Your task to perform on an android device: open app "Nova Launcher" Image 0: 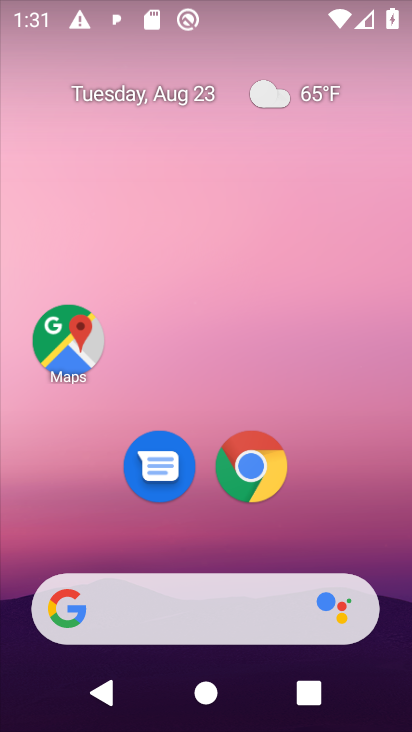
Step 0: drag from (200, 555) to (182, 136)
Your task to perform on an android device: open app "Nova Launcher" Image 1: 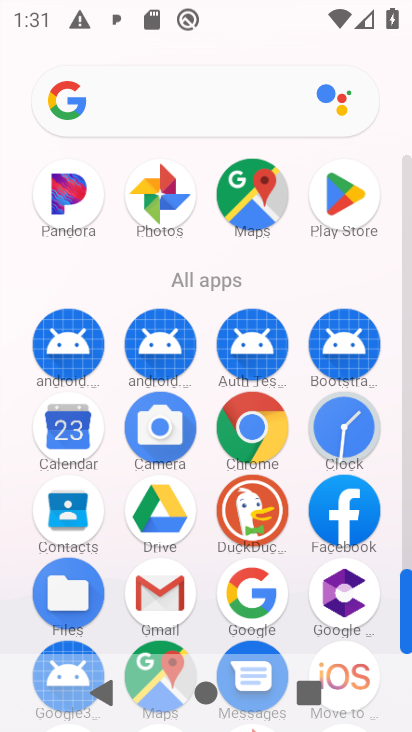
Step 1: click (329, 184)
Your task to perform on an android device: open app "Nova Launcher" Image 2: 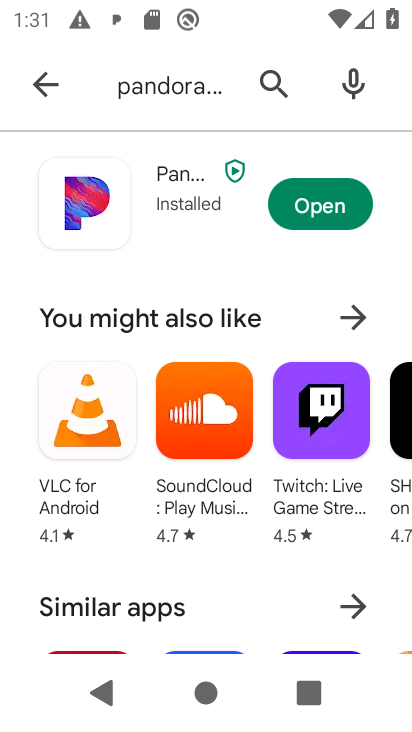
Step 2: click (23, 79)
Your task to perform on an android device: open app "Nova Launcher" Image 3: 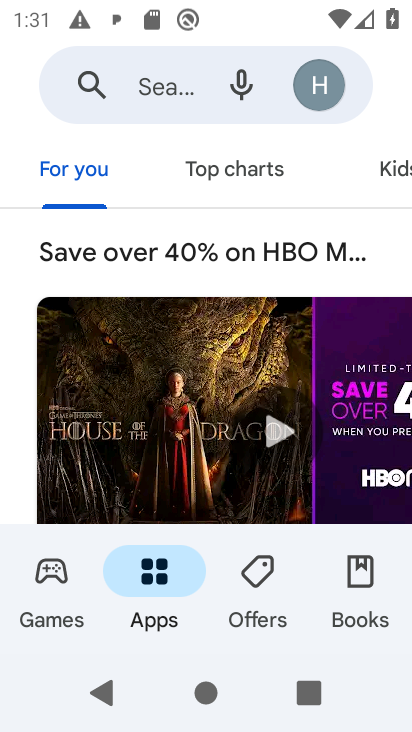
Step 3: click (123, 84)
Your task to perform on an android device: open app "Nova Launcher" Image 4: 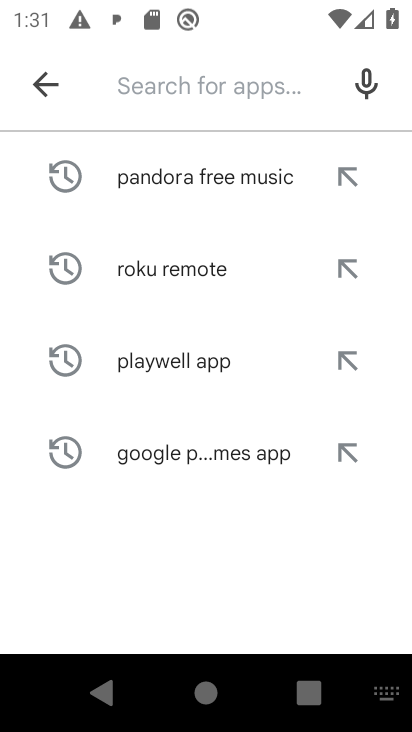
Step 4: type "Nova Launcher "
Your task to perform on an android device: open app "Nova Launcher" Image 5: 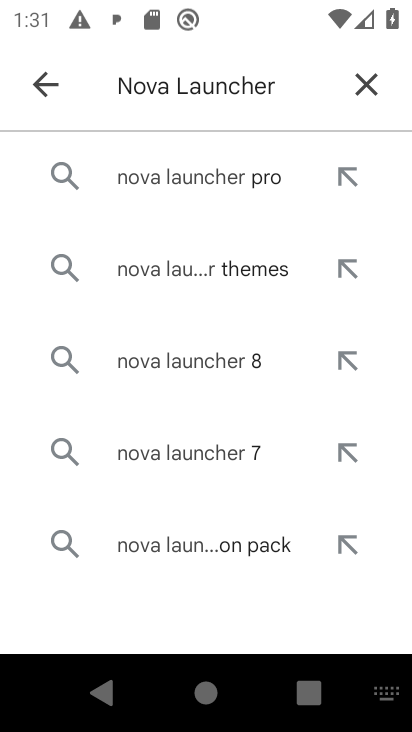
Step 5: click (160, 187)
Your task to perform on an android device: open app "Nova Launcher" Image 6: 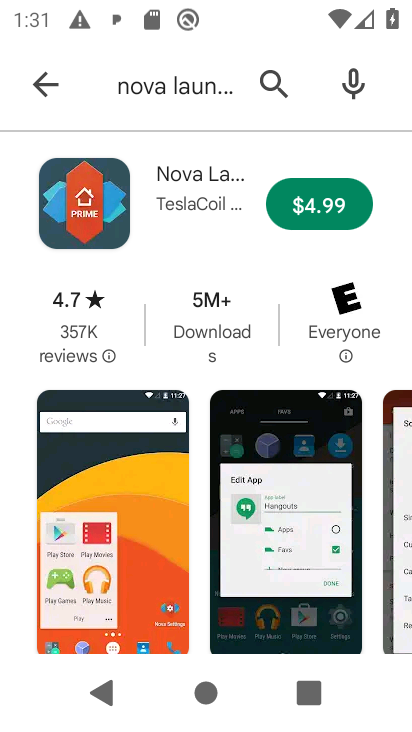
Step 6: task complete